Your task to perform on an android device: Go to wifi settings Image 0: 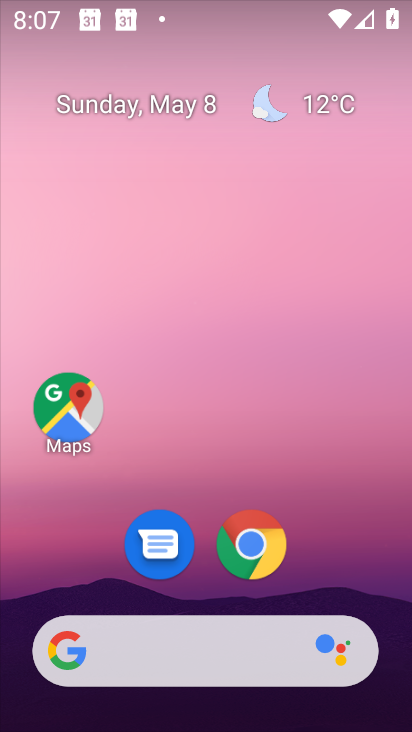
Step 0: drag from (328, 568) to (170, 54)
Your task to perform on an android device: Go to wifi settings Image 1: 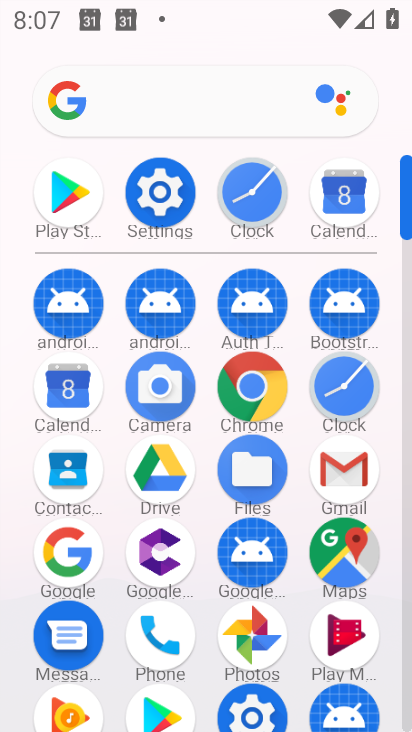
Step 1: click (161, 194)
Your task to perform on an android device: Go to wifi settings Image 2: 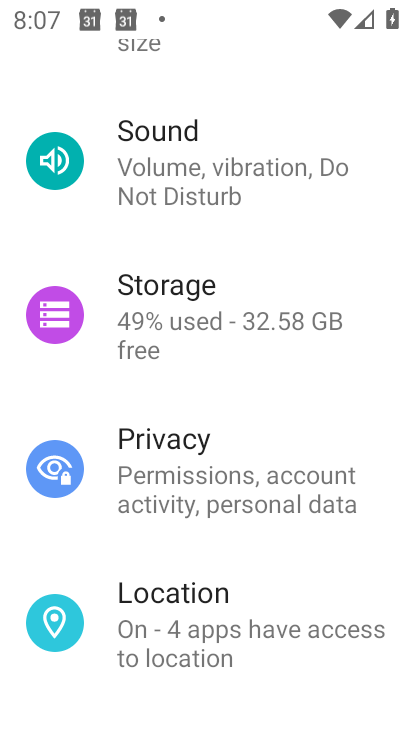
Step 2: drag from (250, 215) to (256, 630)
Your task to perform on an android device: Go to wifi settings Image 3: 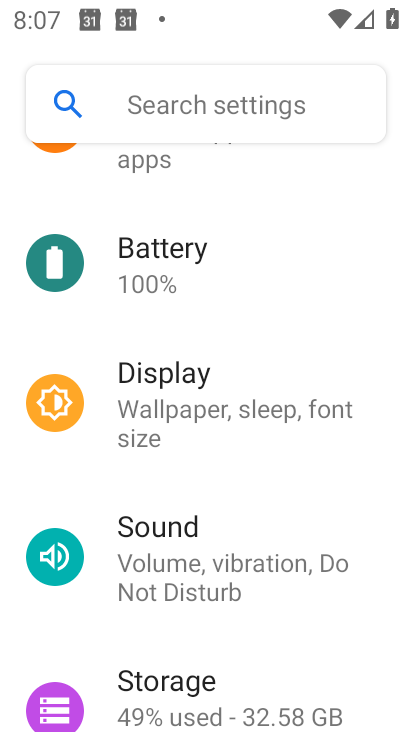
Step 3: drag from (231, 312) to (248, 636)
Your task to perform on an android device: Go to wifi settings Image 4: 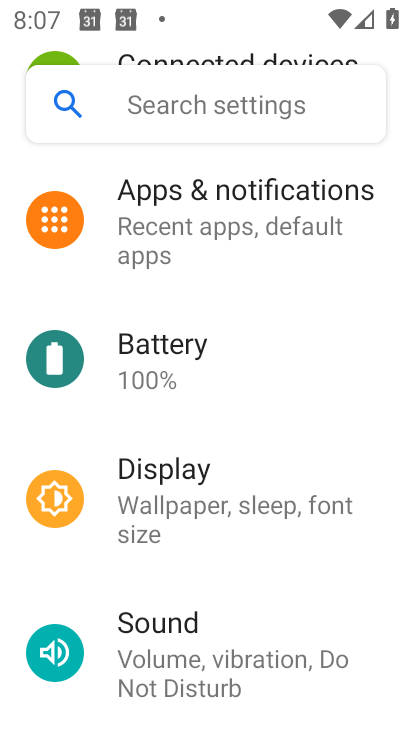
Step 4: drag from (169, 309) to (267, 710)
Your task to perform on an android device: Go to wifi settings Image 5: 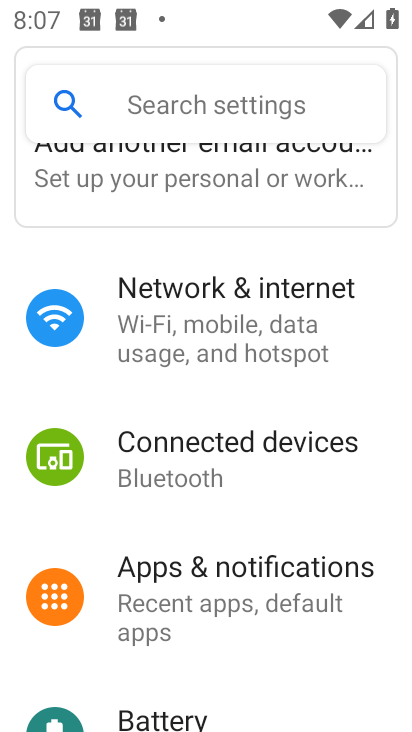
Step 5: click (196, 315)
Your task to perform on an android device: Go to wifi settings Image 6: 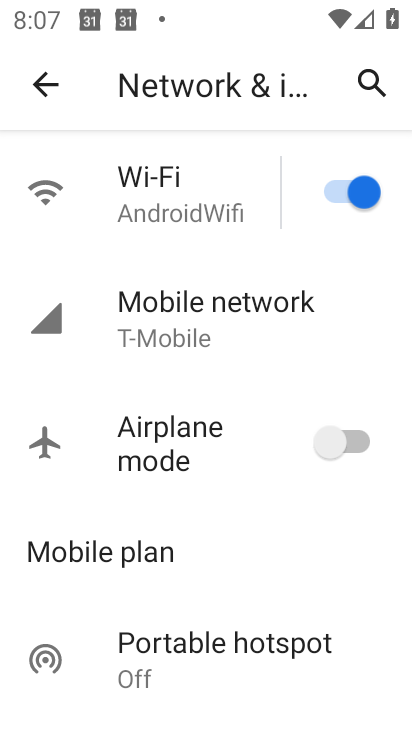
Step 6: click (155, 176)
Your task to perform on an android device: Go to wifi settings Image 7: 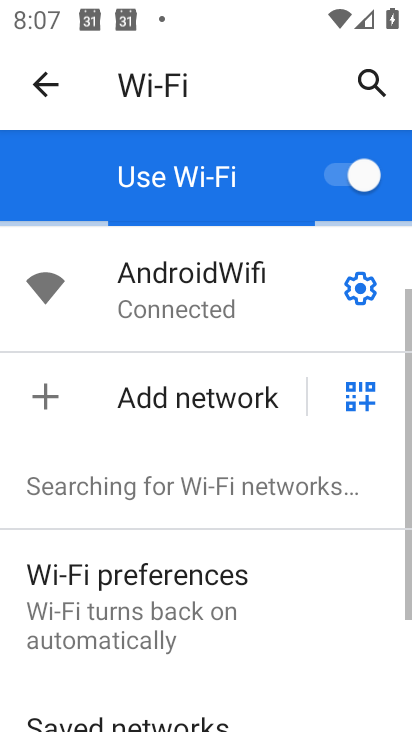
Step 7: task complete